Your task to perform on an android device: set the timer Image 0: 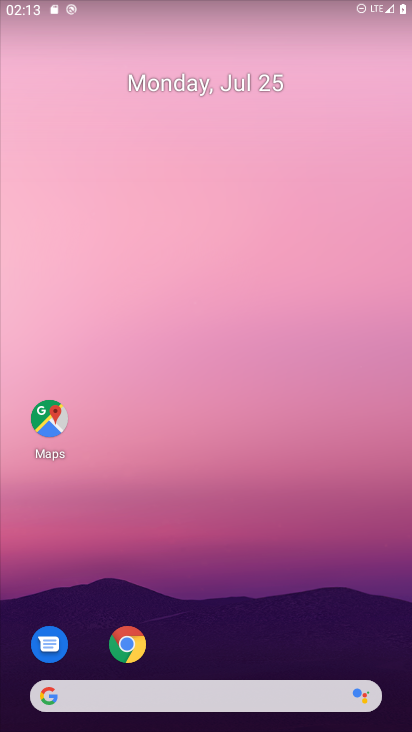
Step 0: drag from (201, 728) to (231, 174)
Your task to perform on an android device: set the timer Image 1: 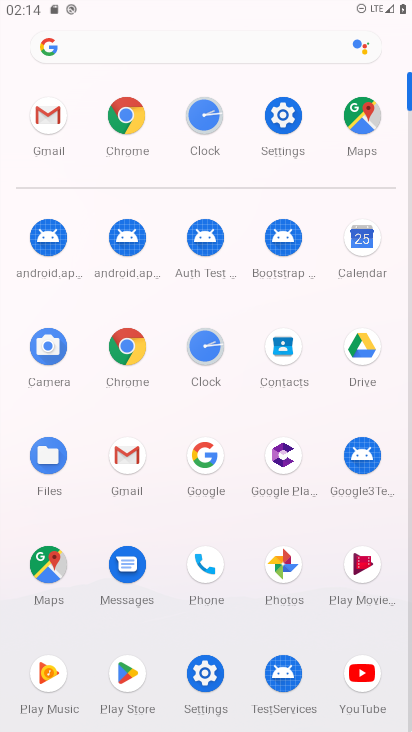
Step 1: click (213, 348)
Your task to perform on an android device: set the timer Image 2: 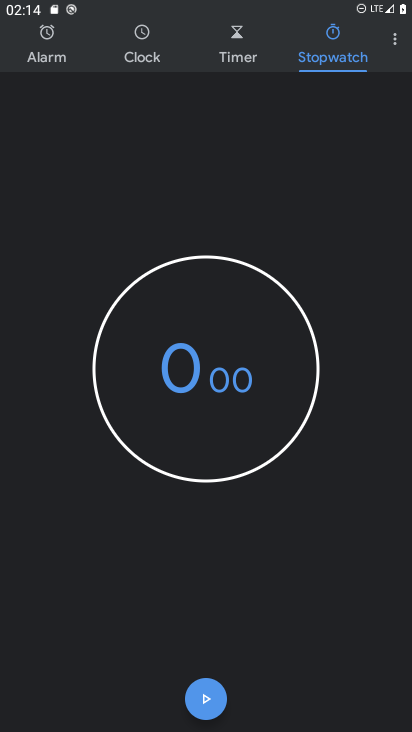
Step 2: click (240, 40)
Your task to perform on an android device: set the timer Image 3: 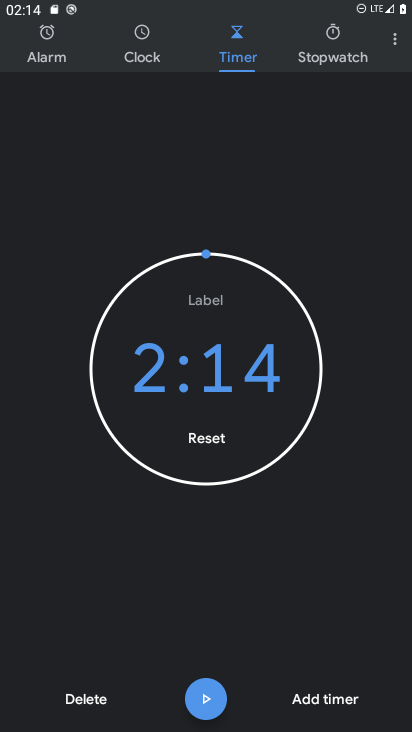
Step 3: click (342, 700)
Your task to perform on an android device: set the timer Image 4: 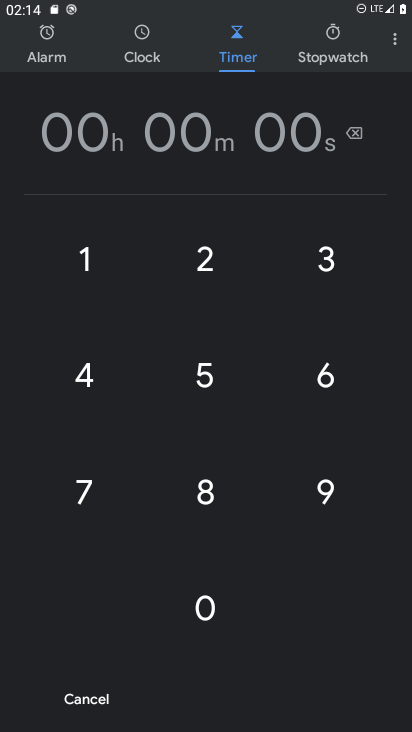
Step 4: click (212, 364)
Your task to perform on an android device: set the timer Image 5: 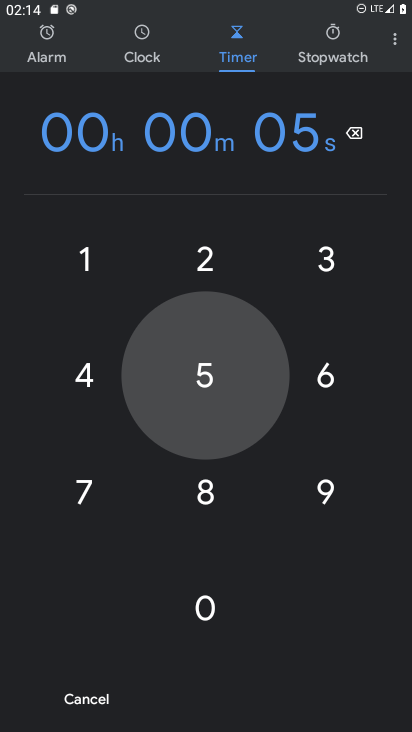
Step 5: click (219, 254)
Your task to perform on an android device: set the timer Image 6: 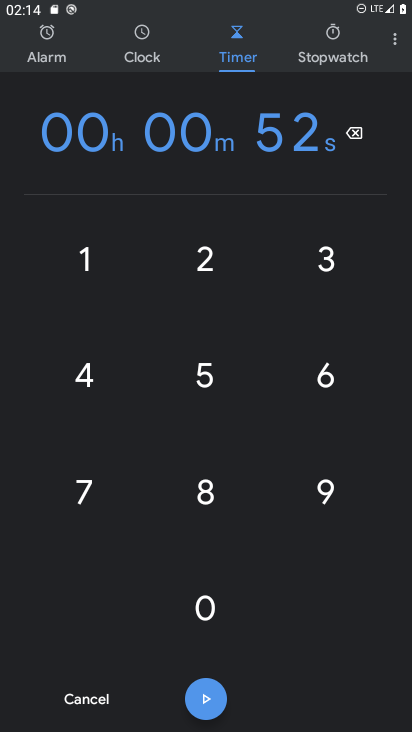
Step 6: click (333, 255)
Your task to perform on an android device: set the timer Image 7: 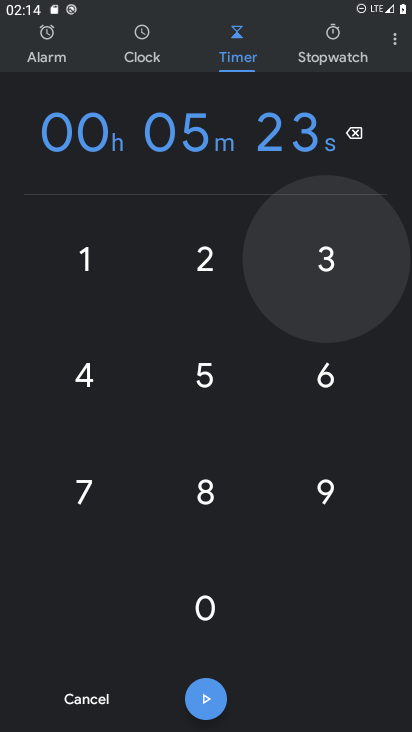
Step 7: click (326, 356)
Your task to perform on an android device: set the timer Image 8: 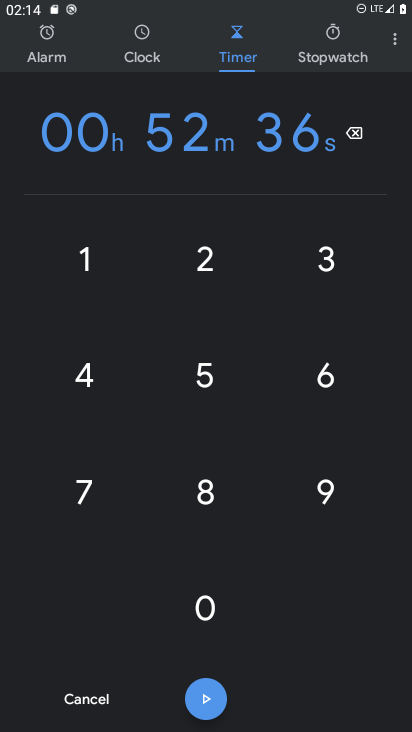
Step 8: click (220, 703)
Your task to perform on an android device: set the timer Image 9: 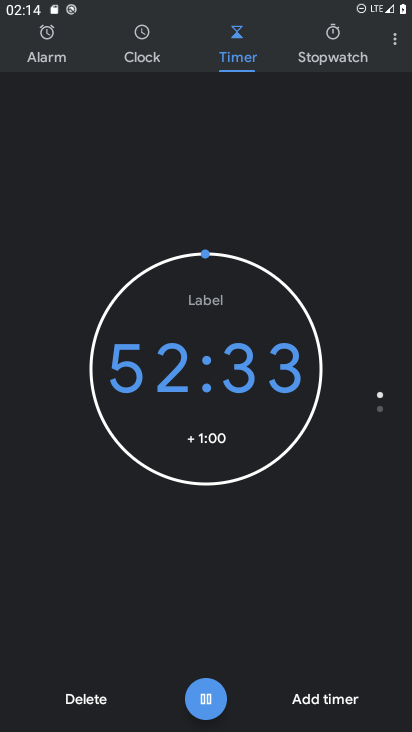
Step 9: task complete